Your task to perform on an android device: add a label to a message in the gmail app Image 0: 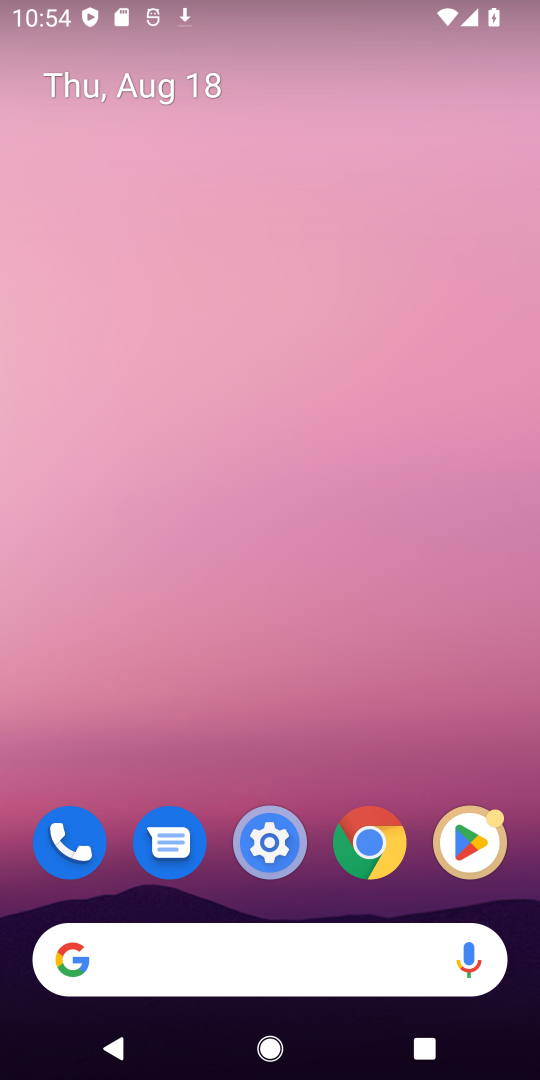
Step 0: drag from (226, 887) to (302, 40)
Your task to perform on an android device: add a label to a message in the gmail app Image 1: 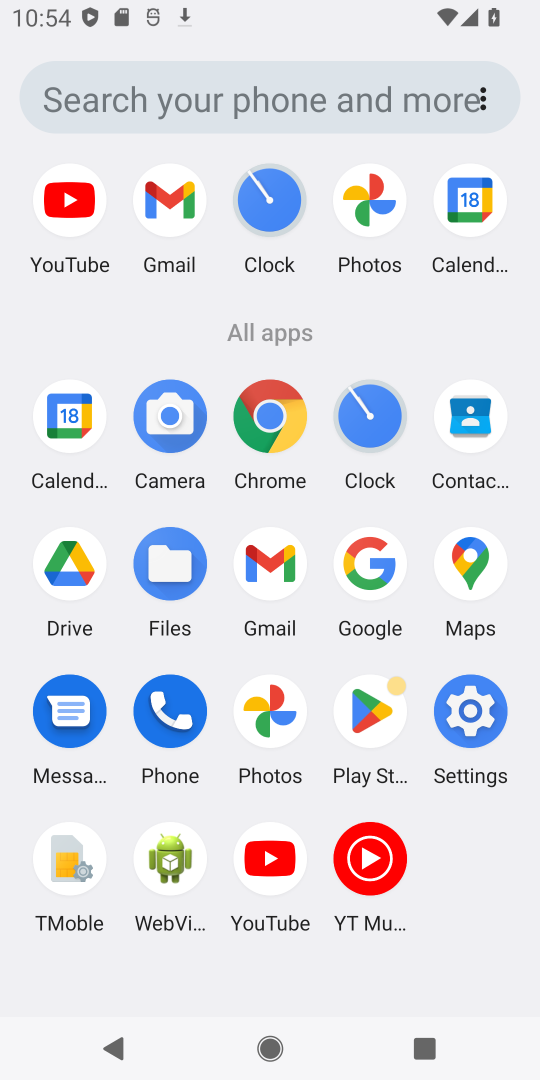
Step 1: click (157, 184)
Your task to perform on an android device: add a label to a message in the gmail app Image 2: 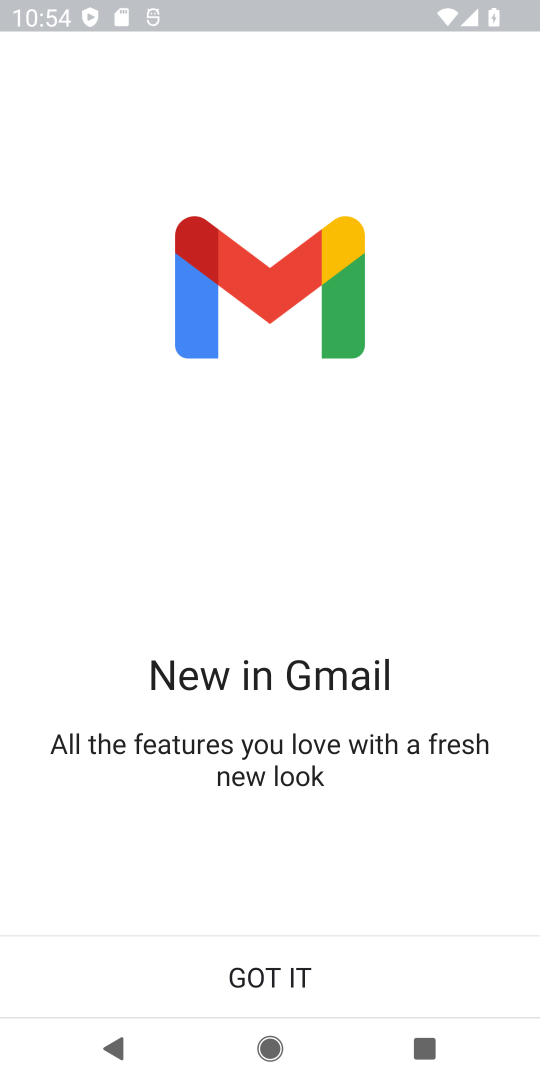
Step 2: click (268, 968)
Your task to perform on an android device: add a label to a message in the gmail app Image 3: 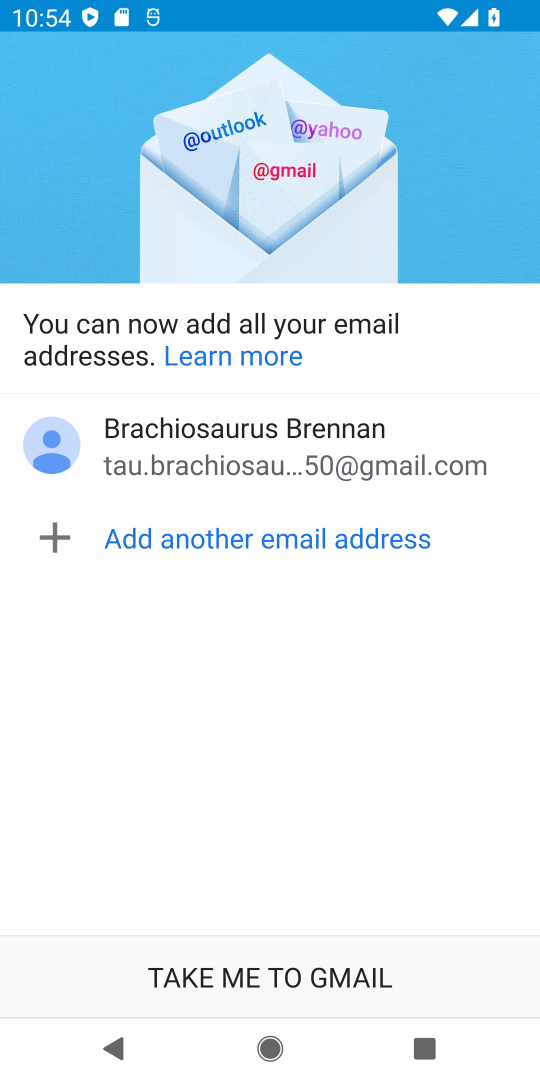
Step 3: click (268, 968)
Your task to perform on an android device: add a label to a message in the gmail app Image 4: 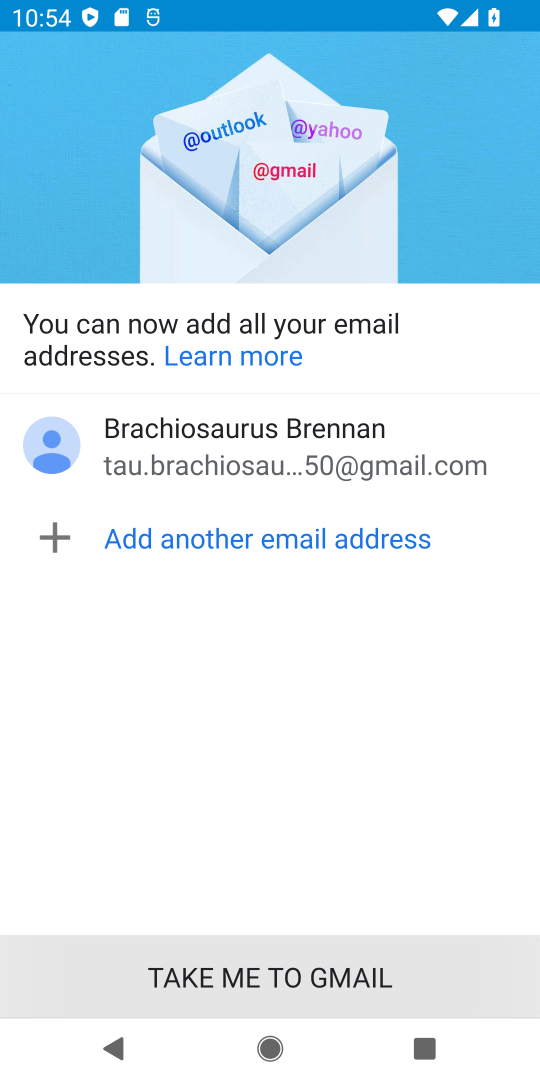
Step 4: click (268, 968)
Your task to perform on an android device: add a label to a message in the gmail app Image 5: 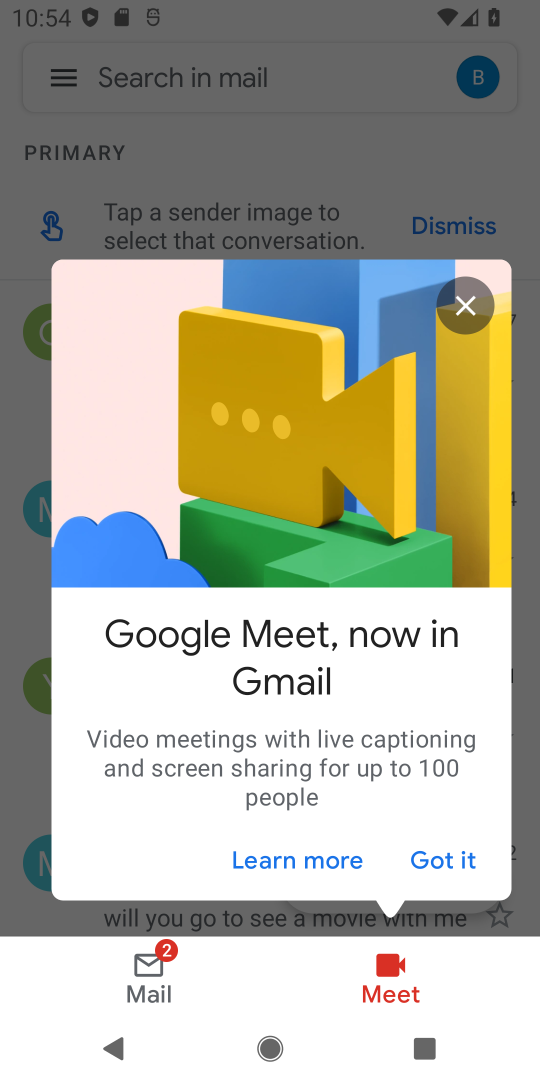
Step 5: click (444, 856)
Your task to perform on an android device: add a label to a message in the gmail app Image 6: 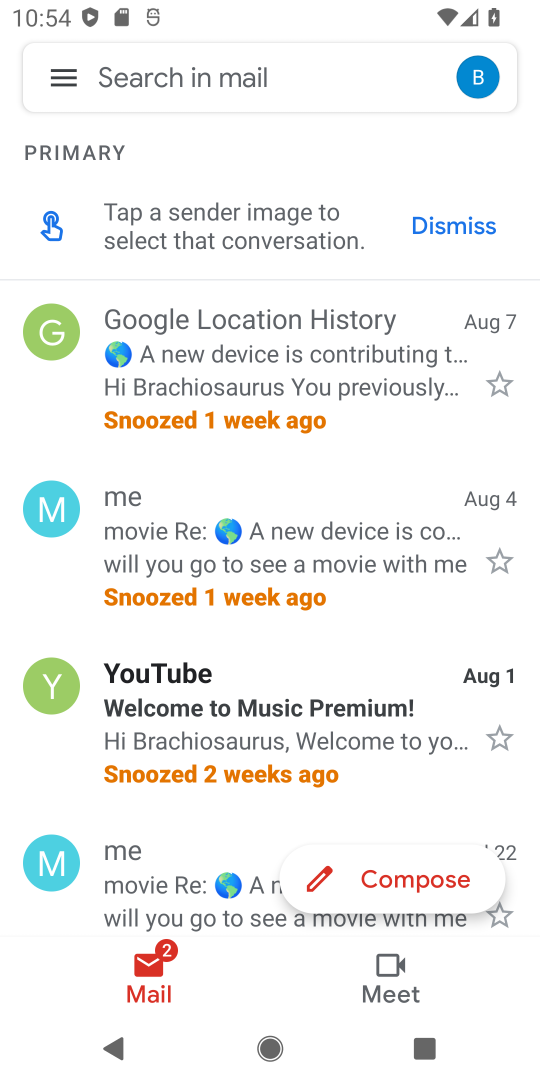
Step 6: click (52, 317)
Your task to perform on an android device: add a label to a message in the gmail app Image 7: 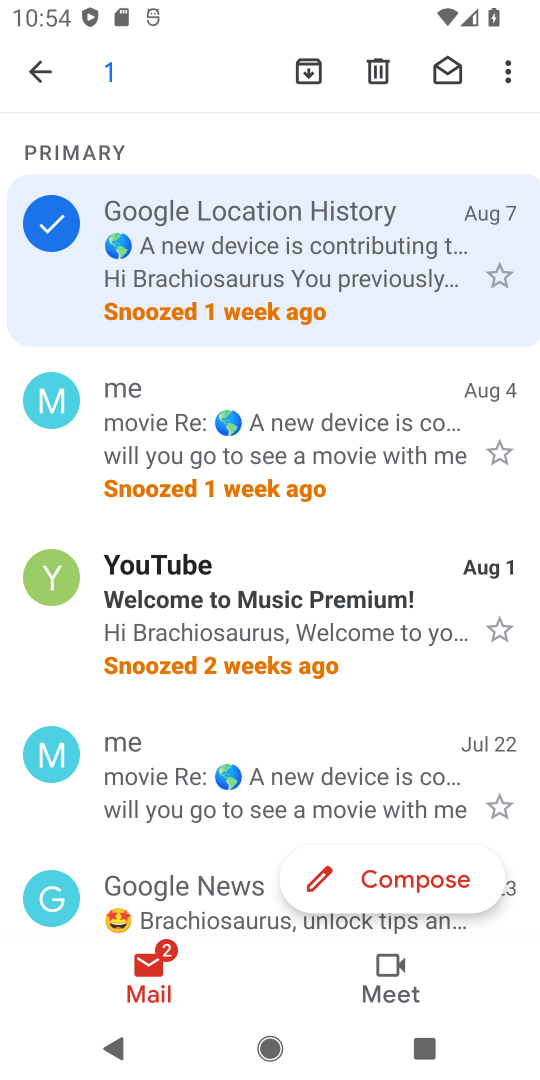
Step 7: click (513, 72)
Your task to perform on an android device: add a label to a message in the gmail app Image 8: 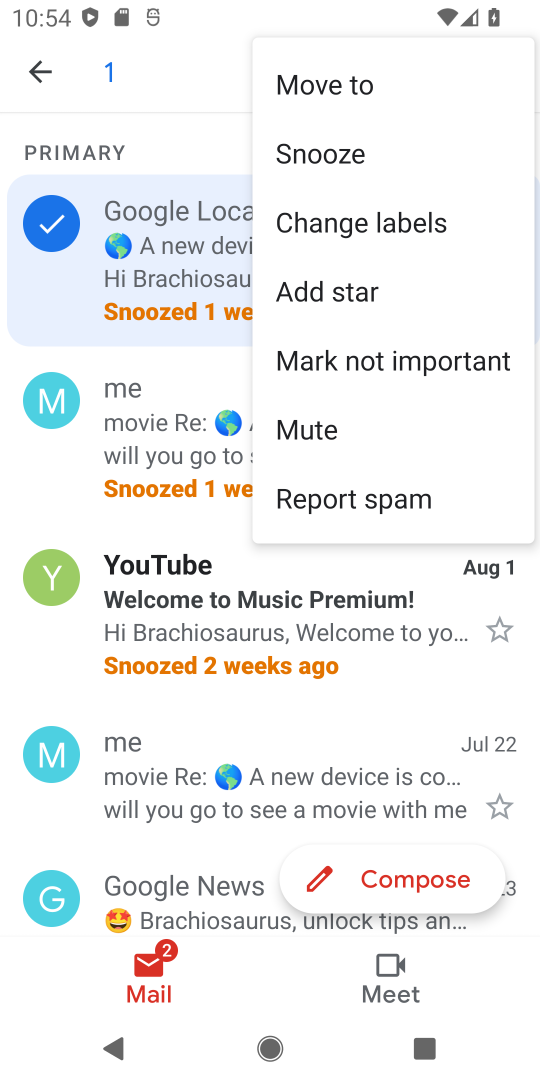
Step 8: click (357, 239)
Your task to perform on an android device: add a label to a message in the gmail app Image 9: 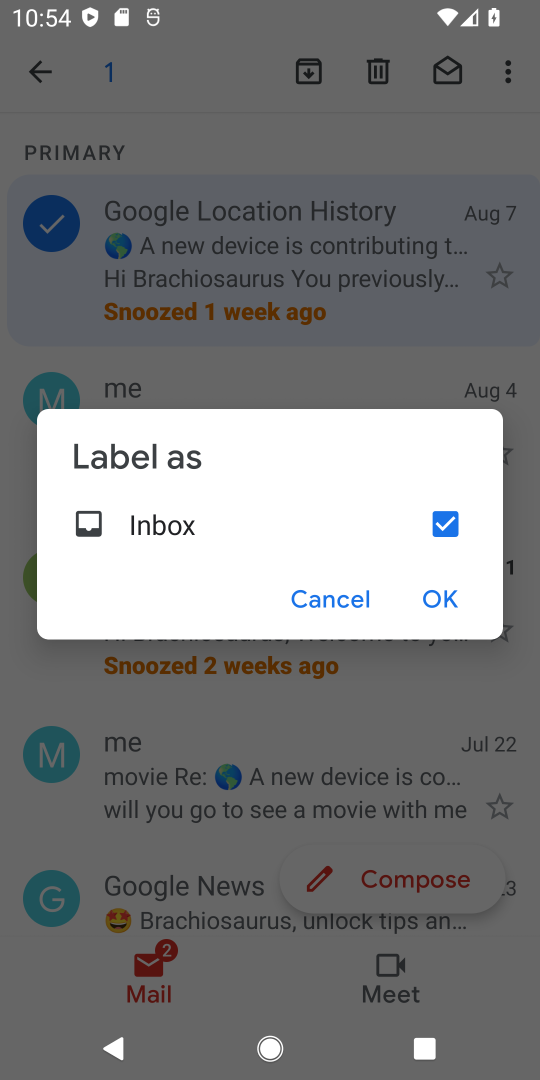
Step 9: click (451, 616)
Your task to perform on an android device: add a label to a message in the gmail app Image 10: 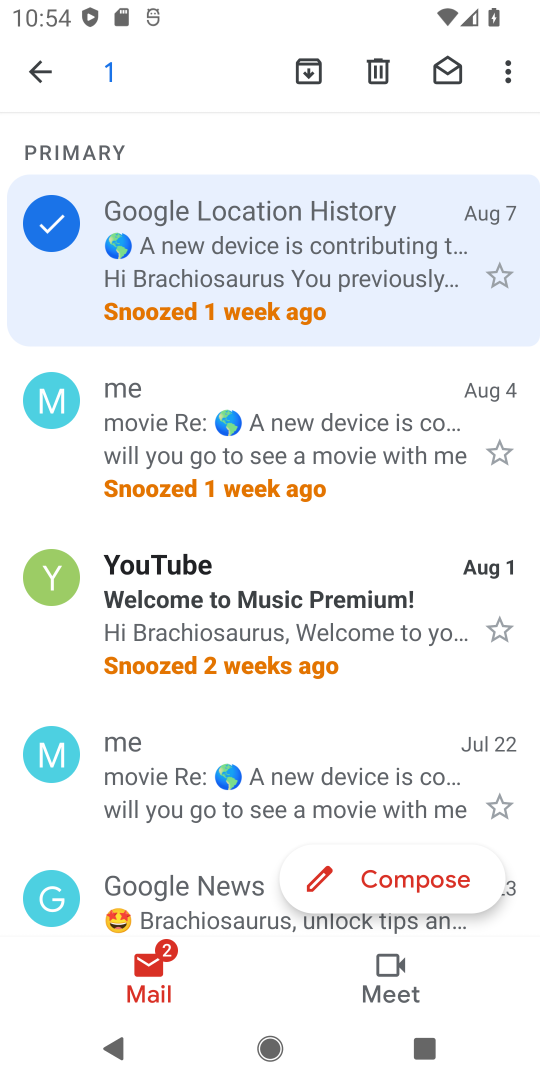
Step 10: task complete